Your task to perform on an android device: turn off sleep mode Image 0: 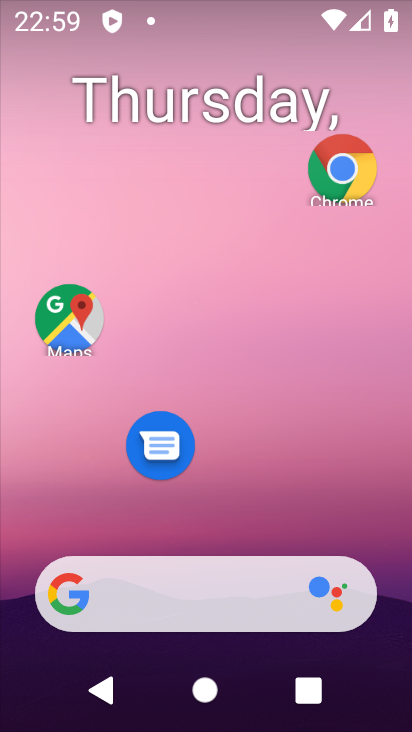
Step 0: drag from (209, 406) to (209, 143)
Your task to perform on an android device: turn off sleep mode Image 1: 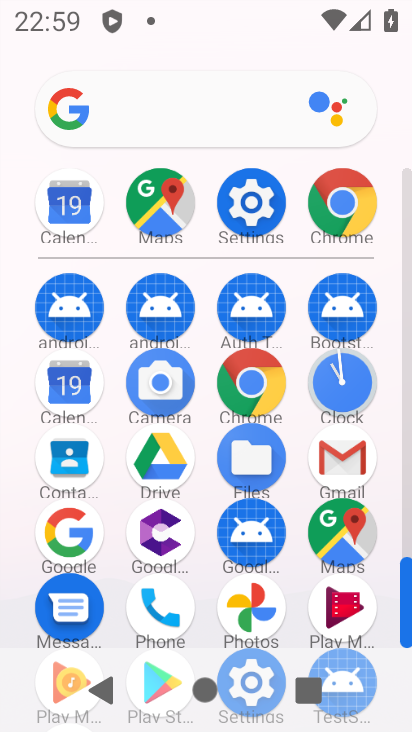
Step 1: click (246, 188)
Your task to perform on an android device: turn off sleep mode Image 2: 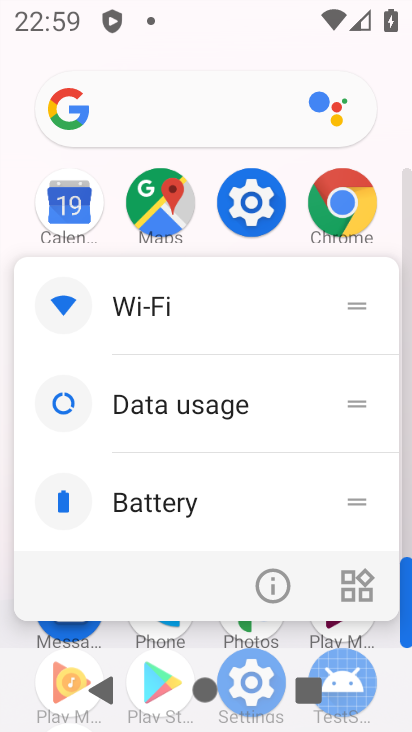
Step 2: click (248, 582)
Your task to perform on an android device: turn off sleep mode Image 3: 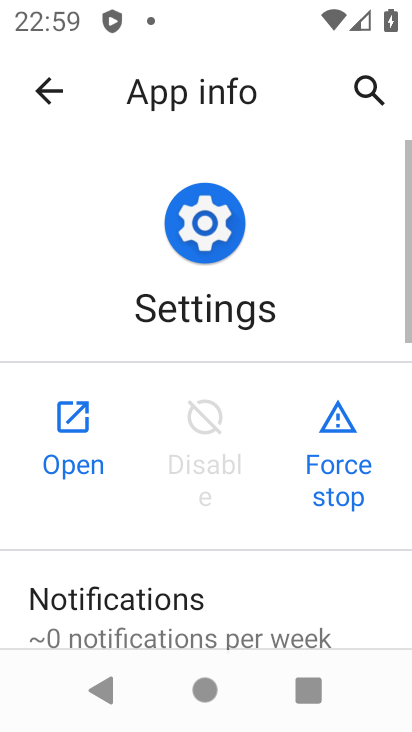
Step 3: click (76, 420)
Your task to perform on an android device: turn off sleep mode Image 4: 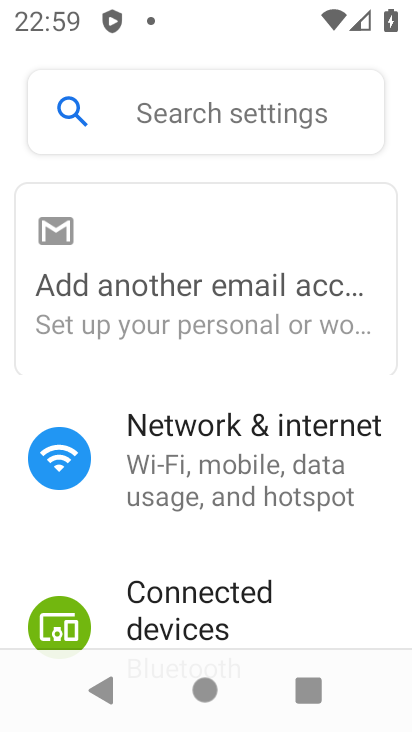
Step 4: drag from (217, 546) to (291, 7)
Your task to perform on an android device: turn off sleep mode Image 5: 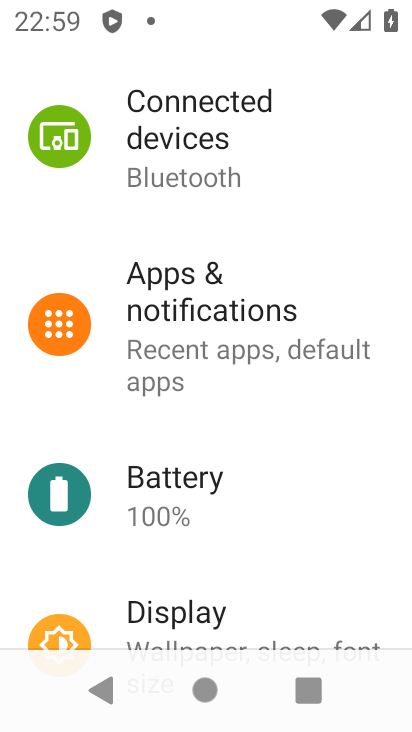
Step 5: click (183, 611)
Your task to perform on an android device: turn off sleep mode Image 6: 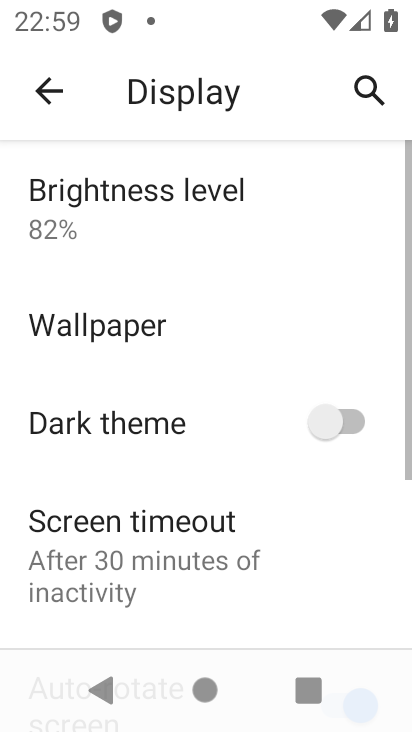
Step 6: drag from (194, 582) to (275, 196)
Your task to perform on an android device: turn off sleep mode Image 7: 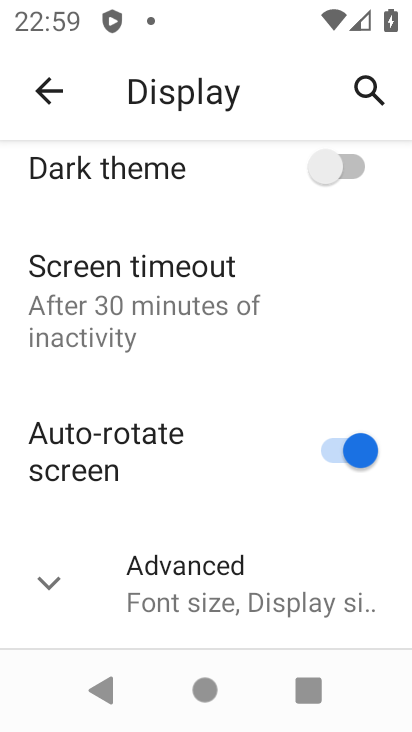
Step 7: click (150, 275)
Your task to perform on an android device: turn off sleep mode Image 8: 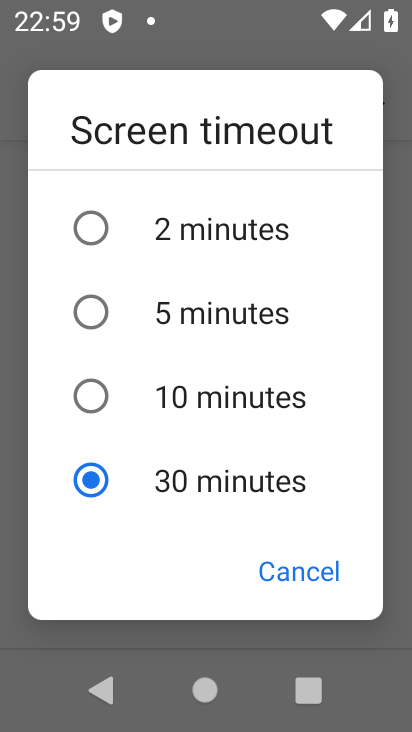
Step 8: task complete